Your task to perform on an android device: Open Chrome and go to settings Image 0: 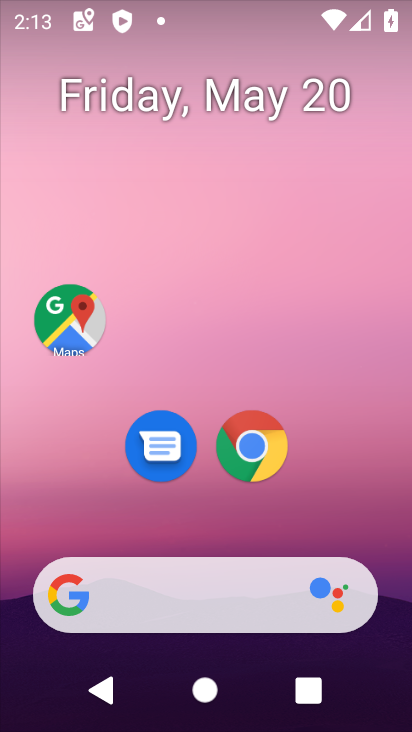
Step 0: click (262, 447)
Your task to perform on an android device: Open Chrome and go to settings Image 1: 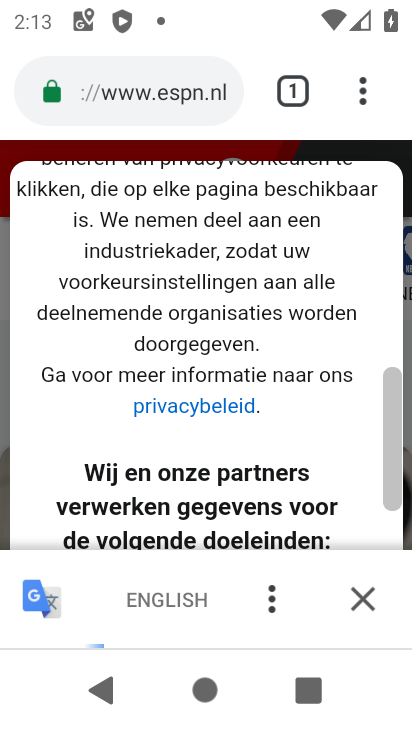
Step 1: click (362, 95)
Your task to perform on an android device: Open Chrome and go to settings Image 2: 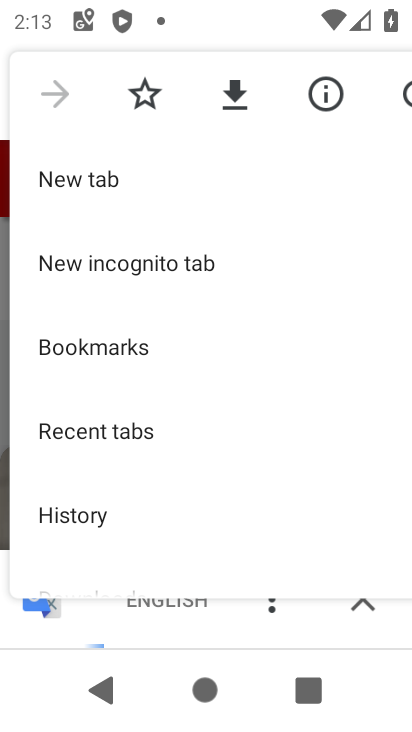
Step 2: drag from (188, 493) to (151, 170)
Your task to perform on an android device: Open Chrome and go to settings Image 3: 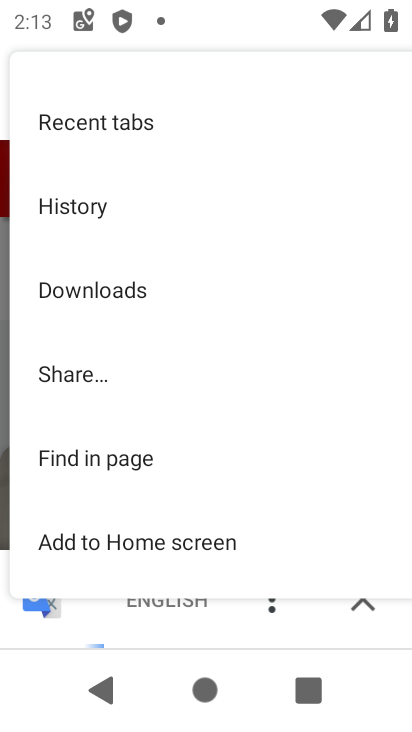
Step 3: drag from (160, 434) to (151, 130)
Your task to perform on an android device: Open Chrome and go to settings Image 4: 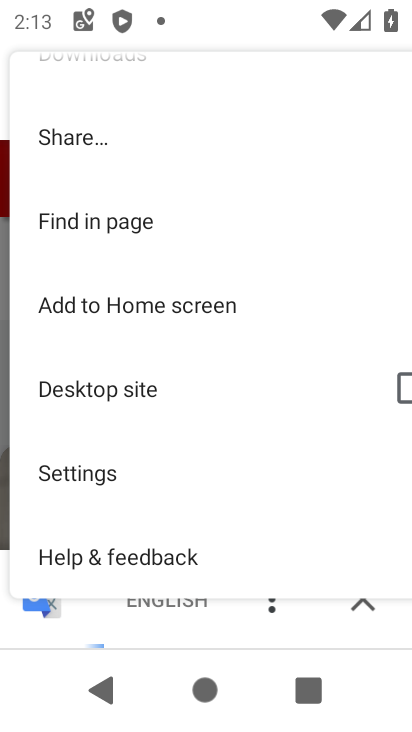
Step 4: click (74, 473)
Your task to perform on an android device: Open Chrome and go to settings Image 5: 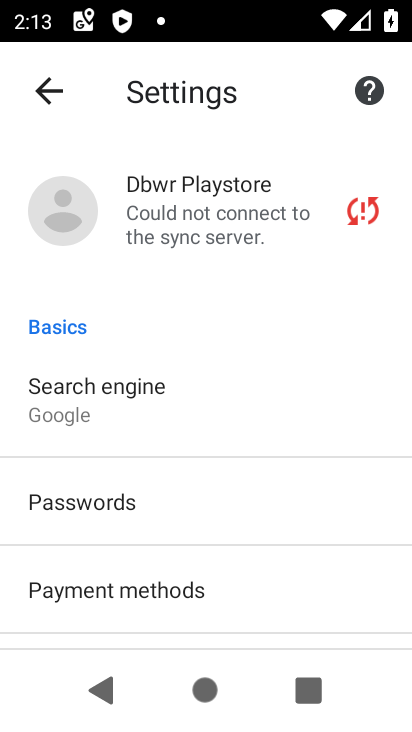
Step 5: task complete